Your task to perform on an android device: Open the web browser Image 0: 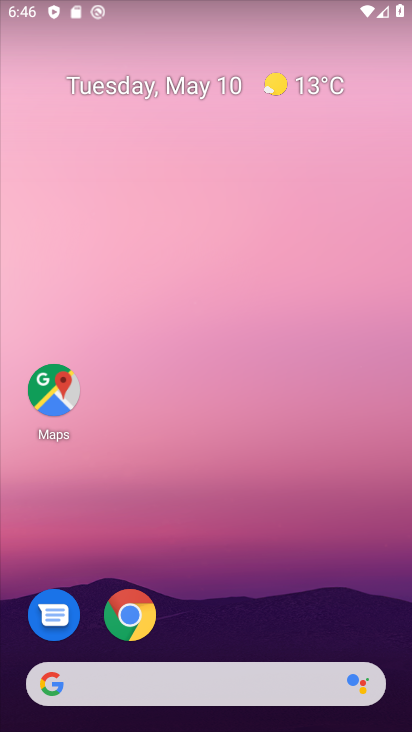
Step 0: drag from (240, 564) to (219, 156)
Your task to perform on an android device: Open the web browser Image 1: 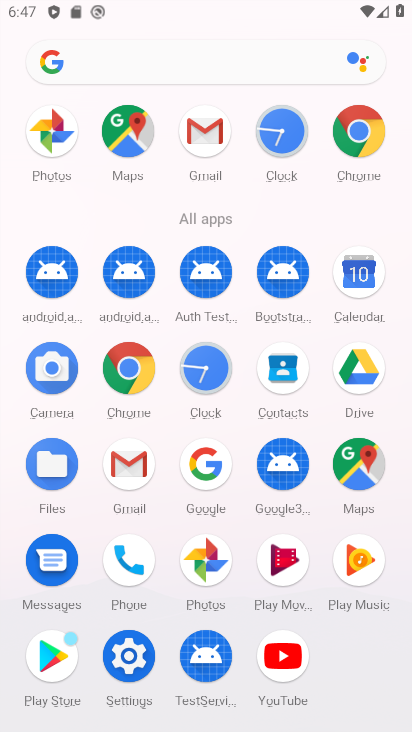
Step 1: click (364, 134)
Your task to perform on an android device: Open the web browser Image 2: 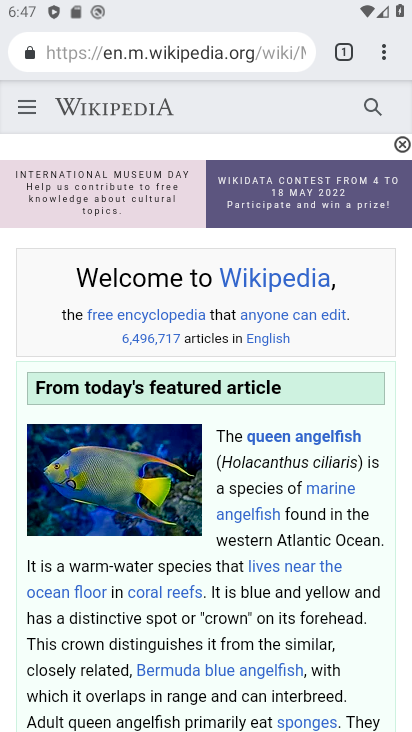
Step 2: task complete